Your task to perform on an android device: move an email to a new category in the gmail app Image 0: 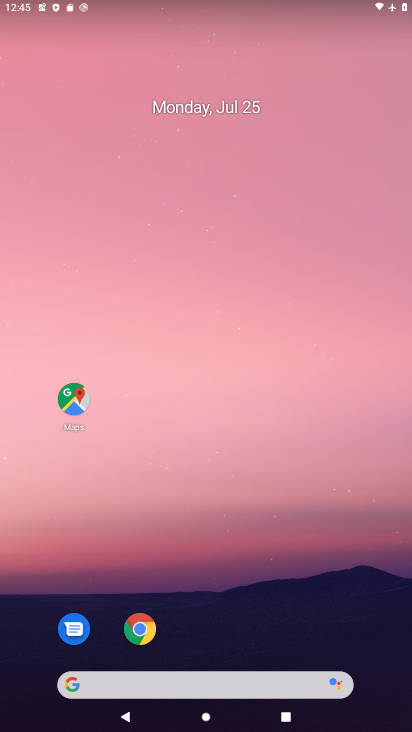
Step 0: drag from (263, 663) to (285, 67)
Your task to perform on an android device: move an email to a new category in the gmail app Image 1: 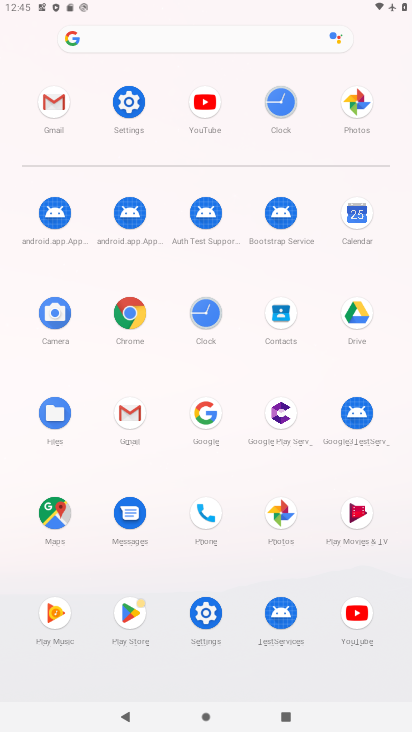
Step 1: click (52, 118)
Your task to perform on an android device: move an email to a new category in the gmail app Image 2: 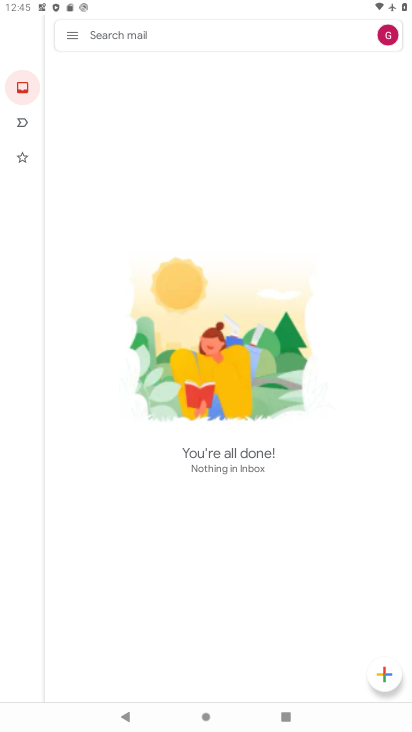
Step 2: task complete